Your task to perform on an android device: turn on improve location accuracy Image 0: 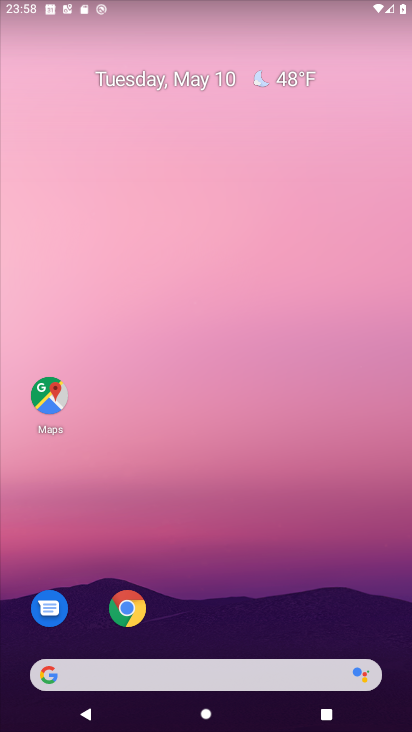
Step 0: drag from (313, 623) to (274, 362)
Your task to perform on an android device: turn on improve location accuracy Image 1: 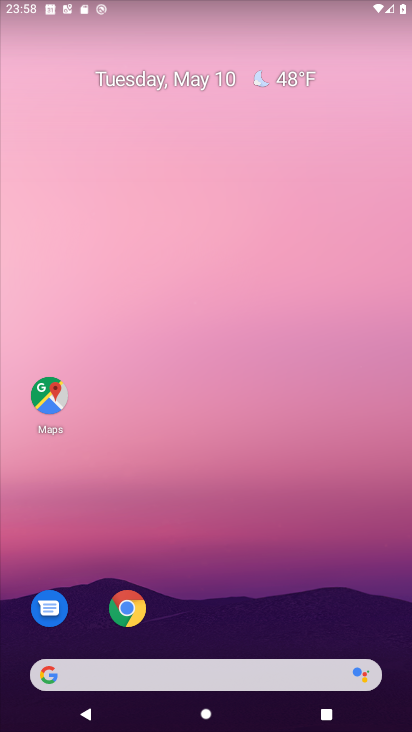
Step 1: drag from (232, 568) to (248, 244)
Your task to perform on an android device: turn on improve location accuracy Image 2: 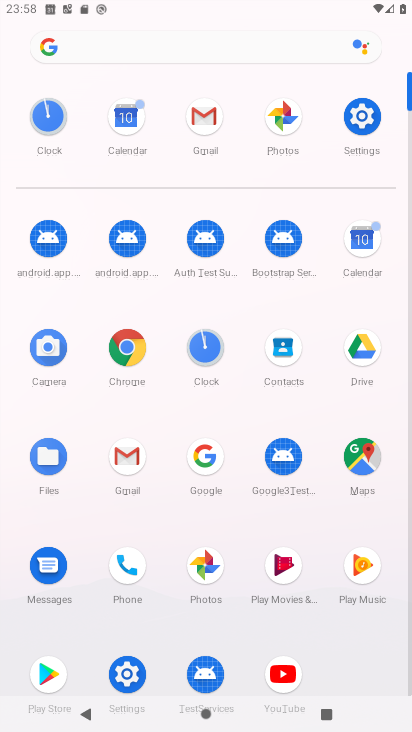
Step 2: click (355, 122)
Your task to perform on an android device: turn on improve location accuracy Image 3: 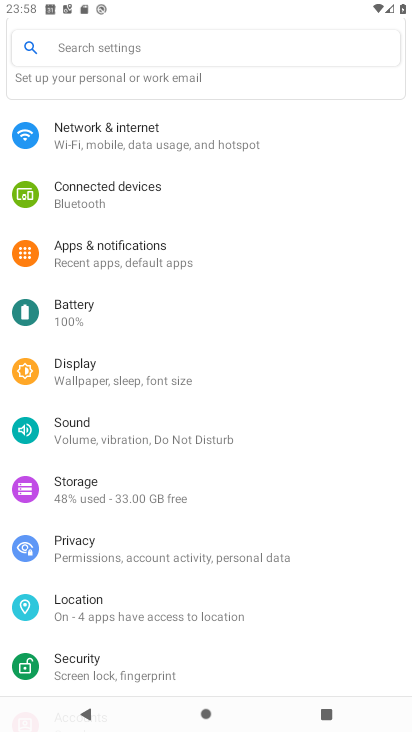
Step 3: click (156, 615)
Your task to perform on an android device: turn on improve location accuracy Image 4: 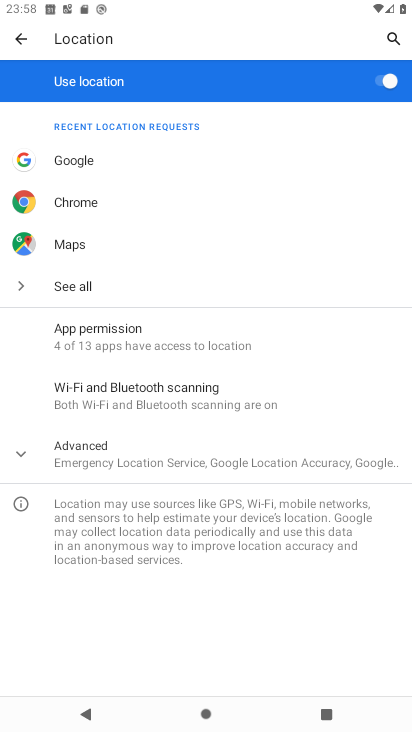
Step 4: click (190, 465)
Your task to perform on an android device: turn on improve location accuracy Image 5: 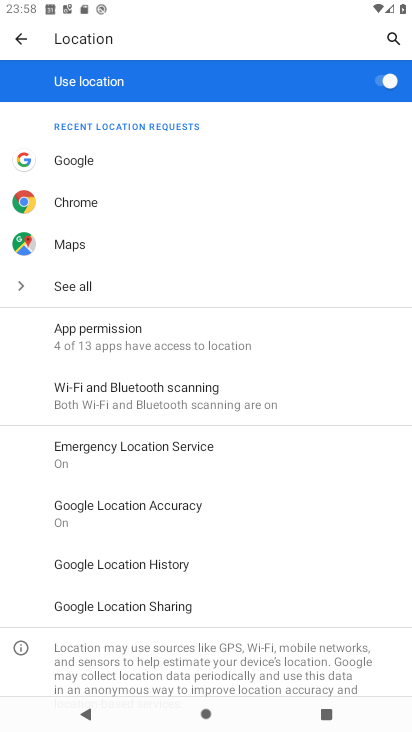
Step 5: task complete